Your task to perform on an android device: see creations saved in the google photos Image 0: 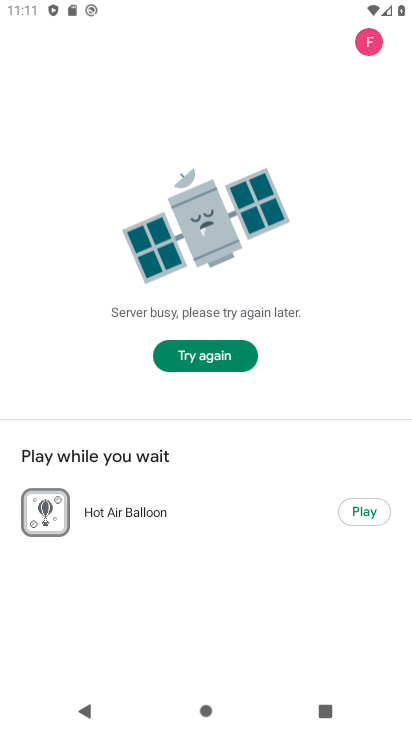
Step 0: press home button
Your task to perform on an android device: see creations saved in the google photos Image 1: 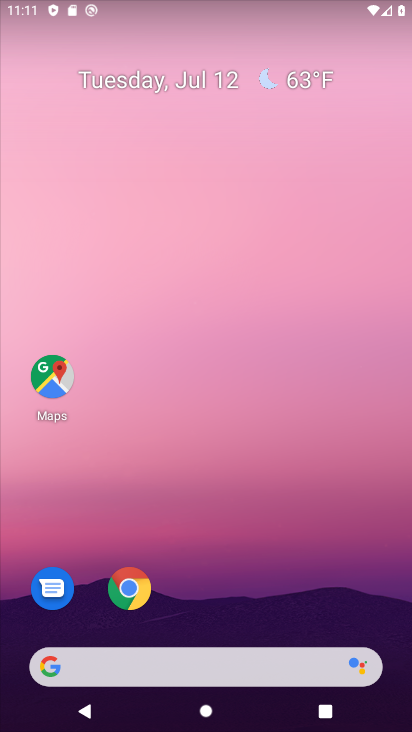
Step 1: drag from (245, 354) to (410, 3)
Your task to perform on an android device: see creations saved in the google photos Image 2: 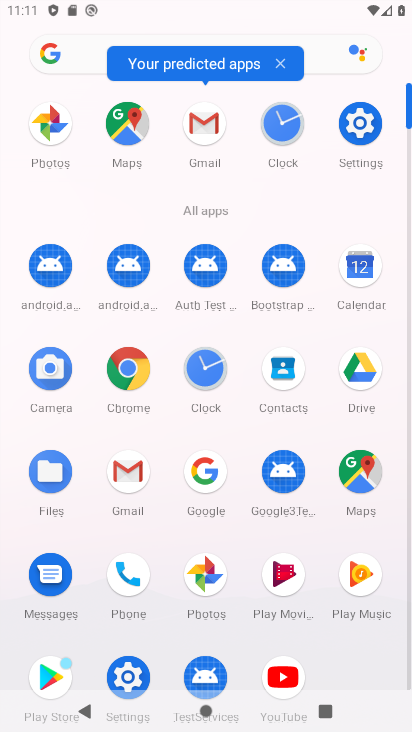
Step 2: click (184, 562)
Your task to perform on an android device: see creations saved in the google photos Image 3: 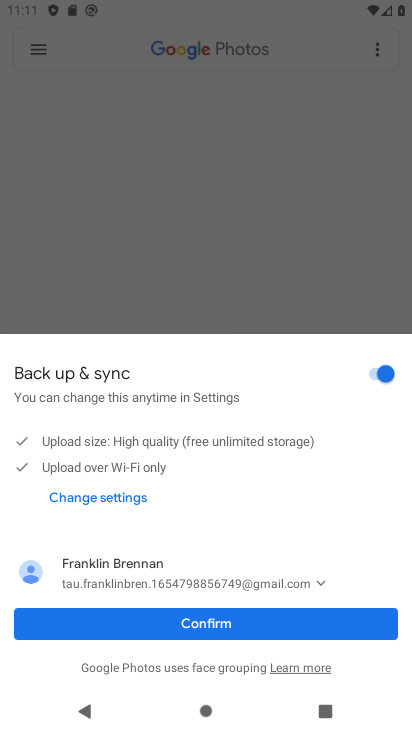
Step 3: click (186, 628)
Your task to perform on an android device: see creations saved in the google photos Image 4: 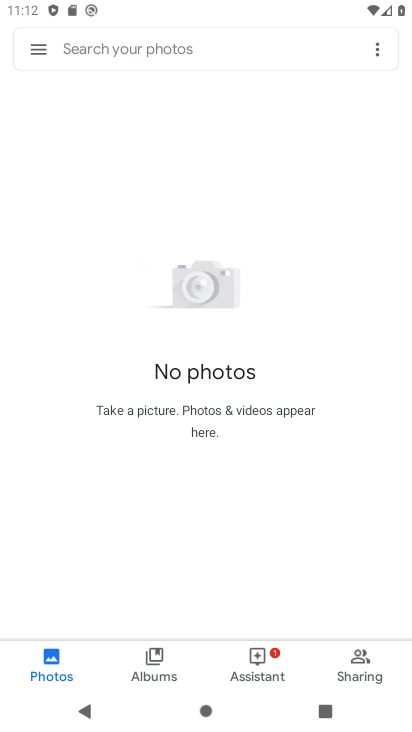
Step 4: click (39, 60)
Your task to perform on an android device: see creations saved in the google photos Image 5: 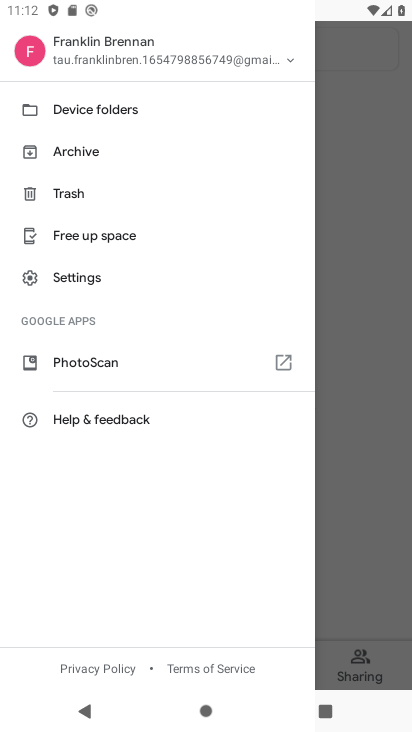
Step 5: click (349, 244)
Your task to perform on an android device: see creations saved in the google photos Image 6: 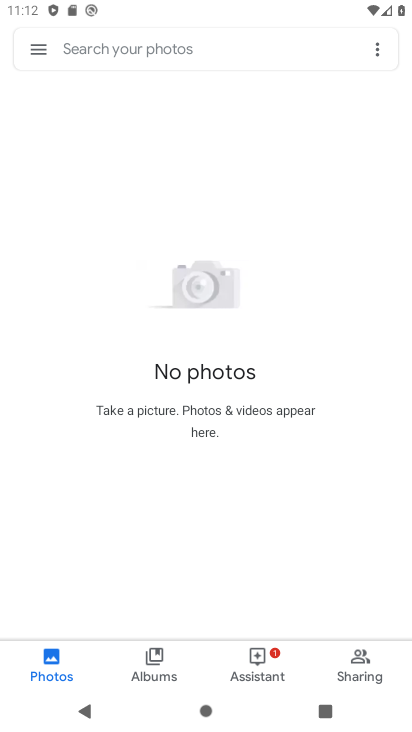
Step 6: task complete